Your task to perform on an android device: open sync settings in chrome Image 0: 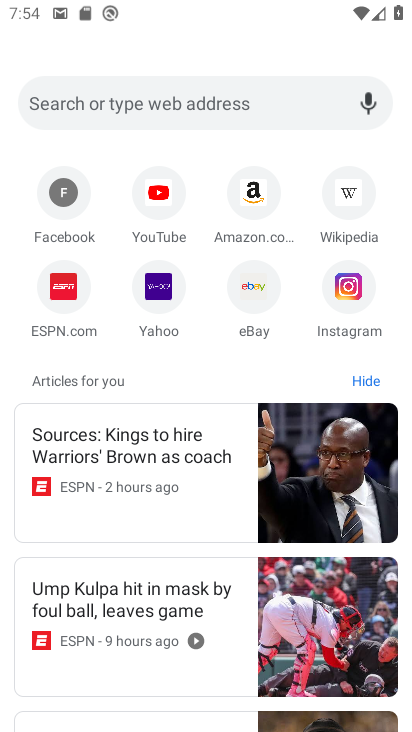
Step 0: press home button
Your task to perform on an android device: open sync settings in chrome Image 1: 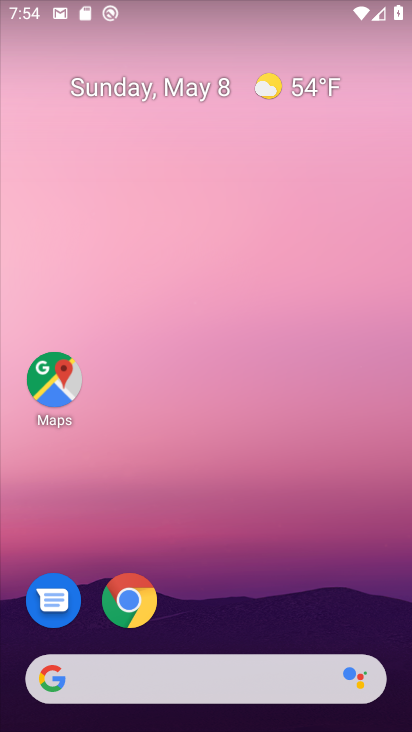
Step 1: click (134, 587)
Your task to perform on an android device: open sync settings in chrome Image 2: 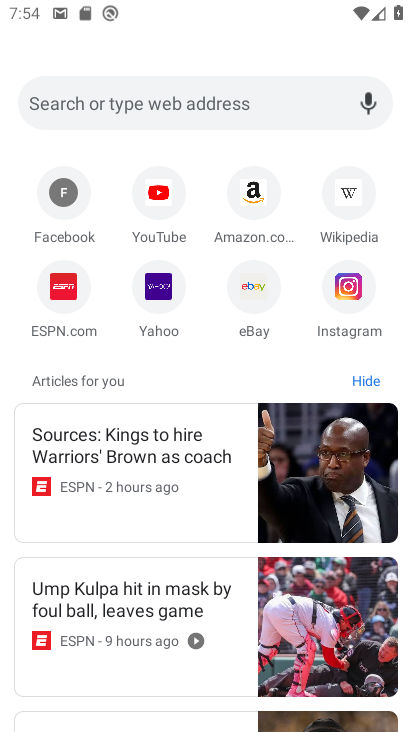
Step 2: drag from (322, 310) to (314, 373)
Your task to perform on an android device: open sync settings in chrome Image 3: 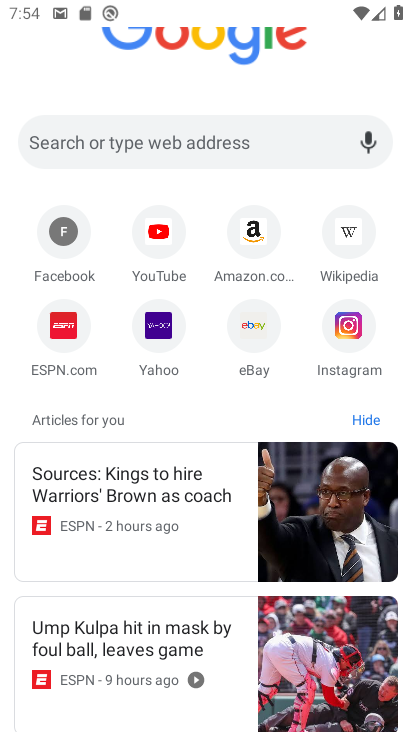
Step 3: drag from (349, 86) to (332, 362)
Your task to perform on an android device: open sync settings in chrome Image 4: 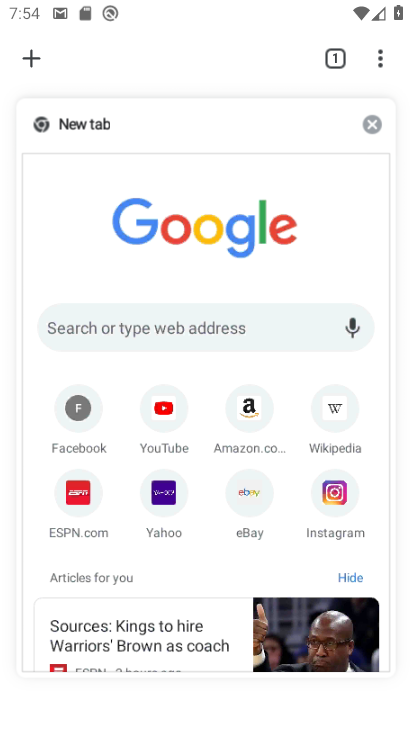
Step 4: click (300, 197)
Your task to perform on an android device: open sync settings in chrome Image 5: 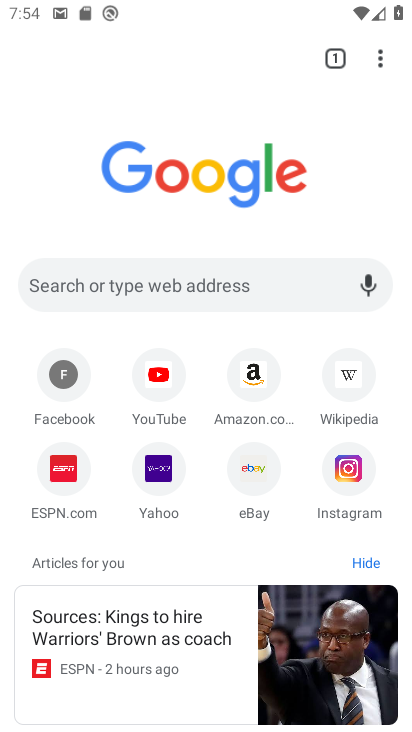
Step 5: click (386, 64)
Your task to perform on an android device: open sync settings in chrome Image 6: 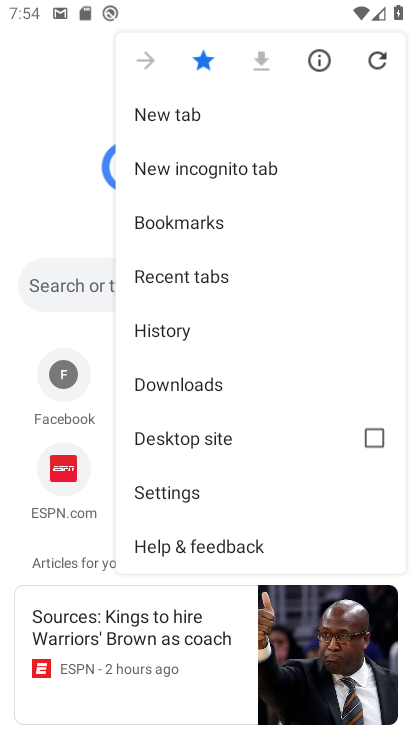
Step 6: click (203, 494)
Your task to perform on an android device: open sync settings in chrome Image 7: 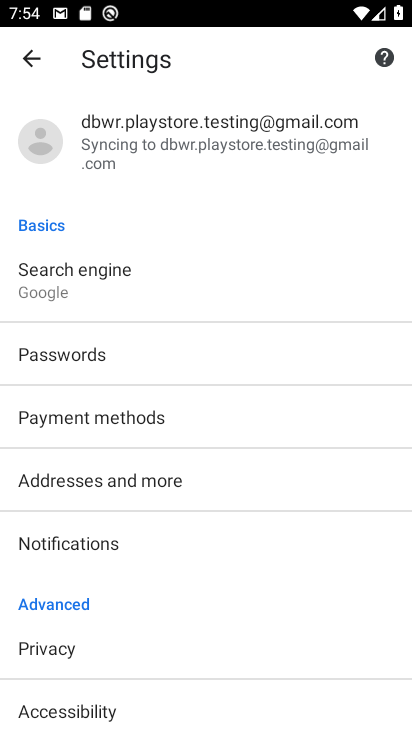
Step 7: drag from (203, 494) to (265, 218)
Your task to perform on an android device: open sync settings in chrome Image 8: 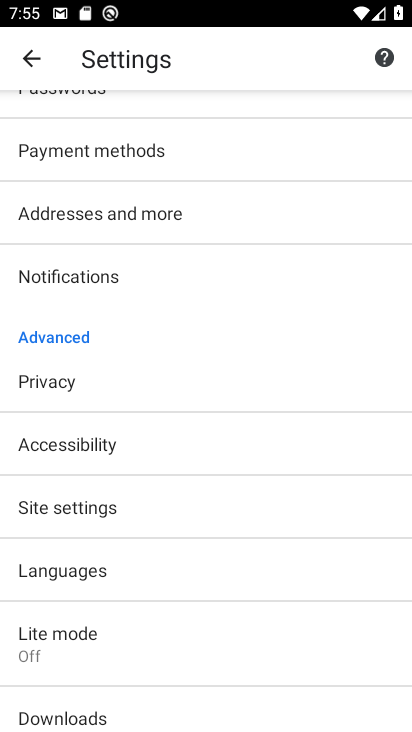
Step 8: drag from (260, 235) to (301, 376)
Your task to perform on an android device: open sync settings in chrome Image 9: 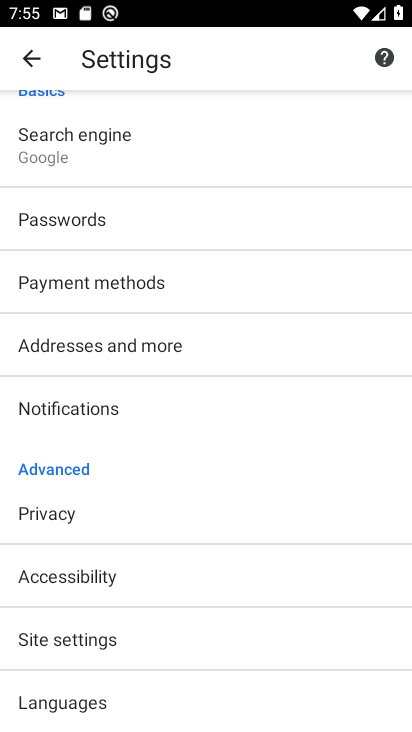
Step 9: drag from (306, 112) to (296, 333)
Your task to perform on an android device: open sync settings in chrome Image 10: 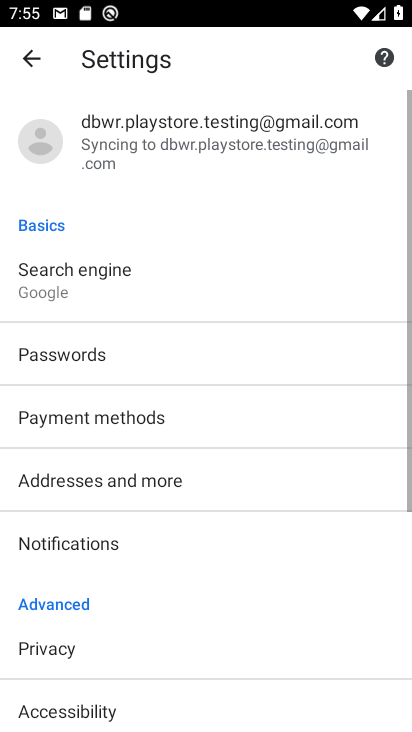
Step 10: click (258, 153)
Your task to perform on an android device: open sync settings in chrome Image 11: 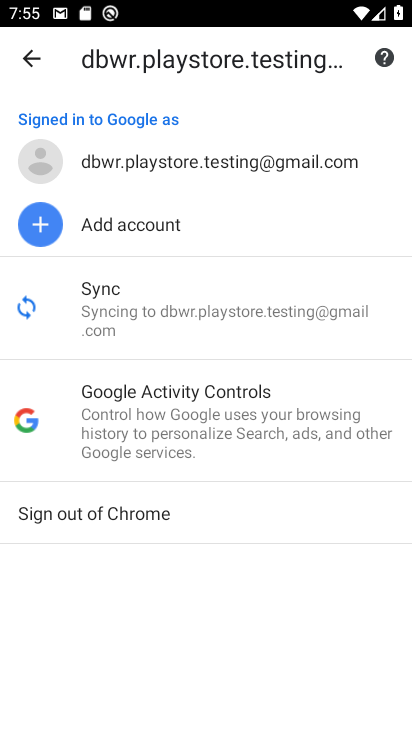
Step 11: click (173, 305)
Your task to perform on an android device: open sync settings in chrome Image 12: 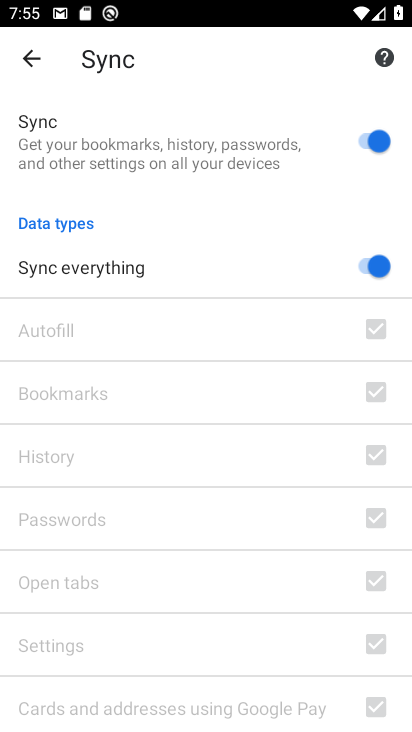
Step 12: task complete